Your task to perform on an android device: Show me productivity apps on the Play Store Image 0: 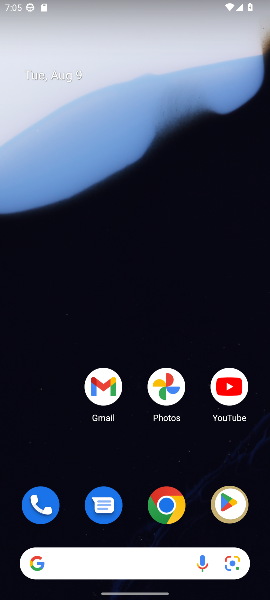
Step 0: press home button
Your task to perform on an android device: Show me productivity apps on the Play Store Image 1: 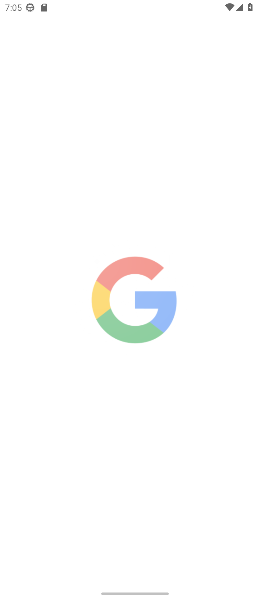
Step 1: drag from (265, 158) to (265, 377)
Your task to perform on an android device: Show me productivity apps on the Play Store Image 2: 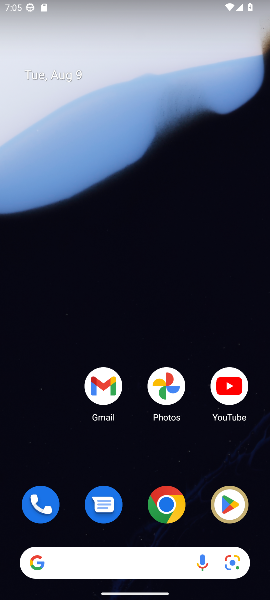
Step 2: drag from (72, 422) to (117, 114)
Your task to perform on an android device: Show me productivity apps on the Play Store Image 3: 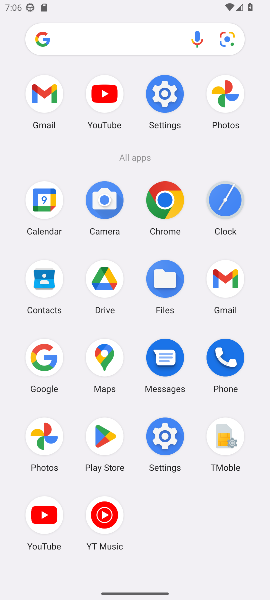
Step 3: click (105, 455)
Your task to perform on an android device: Show me productivity apps on the Play Store Image 4: 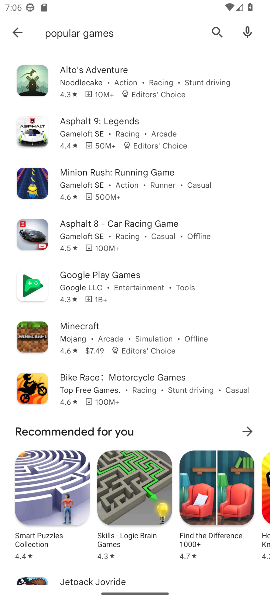
Step 4: click (210, 32)
Your task to perform on an android device: Show me productivity apps on the Play Store Image 5: 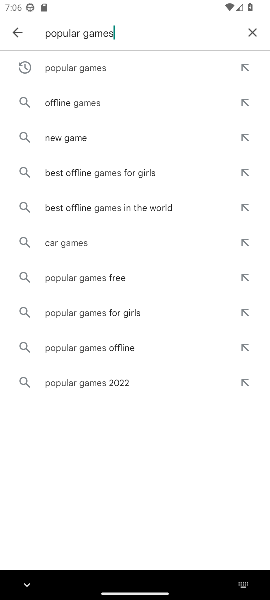
Step 5: click (42, 7)
Your task to perform on an android device: Show me productivity apps on the Play Store Image 6: 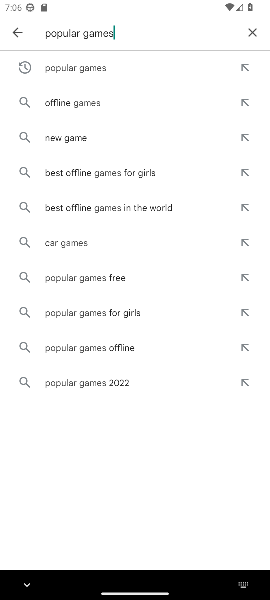
Step 6: click (251, 40)
Your task to perform on an android device: Show me productivity apps on the Play Store Image 7: 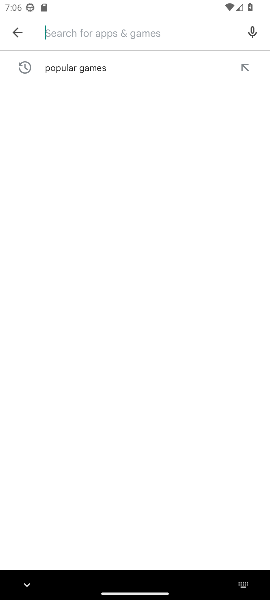
Step 7: type "productivity apps "
Your task to perform on an android device: Show me productivity apps on the Play Store Image 8: 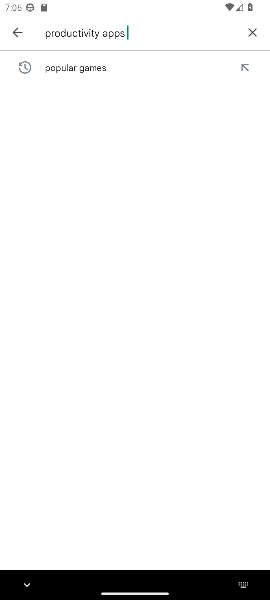
Step 8: type ""
Your task to perform on an android device: Show me productivity apps on the Play Store Image 9: 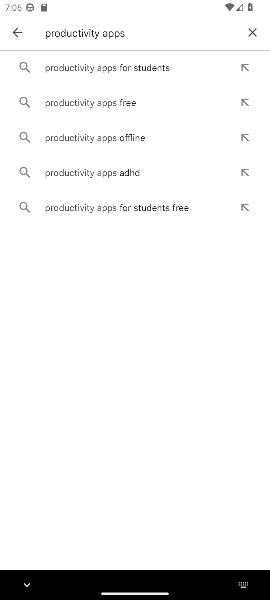
Step 9: click (121, 64)
Your task to perform on an android device: Show me productivity apps on the Play Store Image 10: 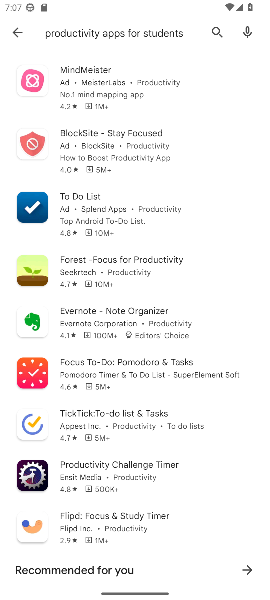
Step 10: task complete